Your task to perform on an android device: turn on javascript in the chrome app Image 0: 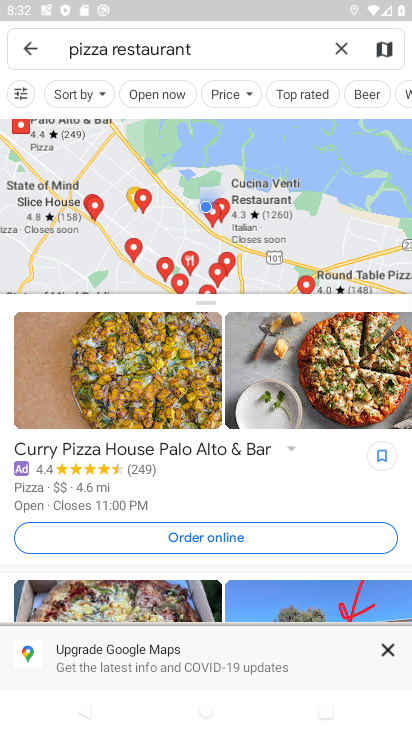
Step 0: press home button
Your task to perform on an android device: turn on javascript in the chrome app Image 1: 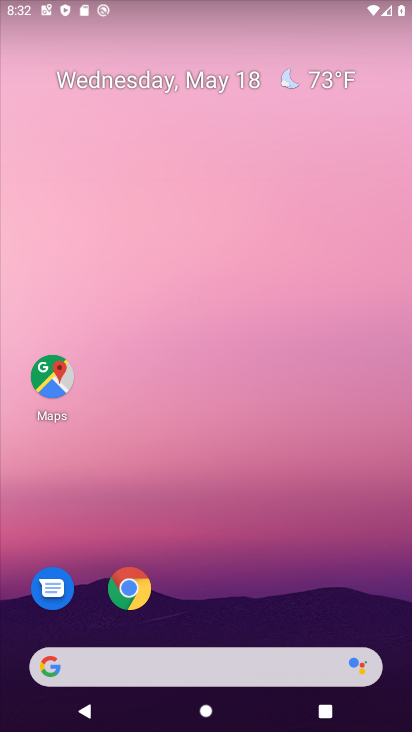
Step 1: drag from (402, 601) to (347, 299)
Your task to perform on an android device: turn on javascript in the chrome app Image 2: 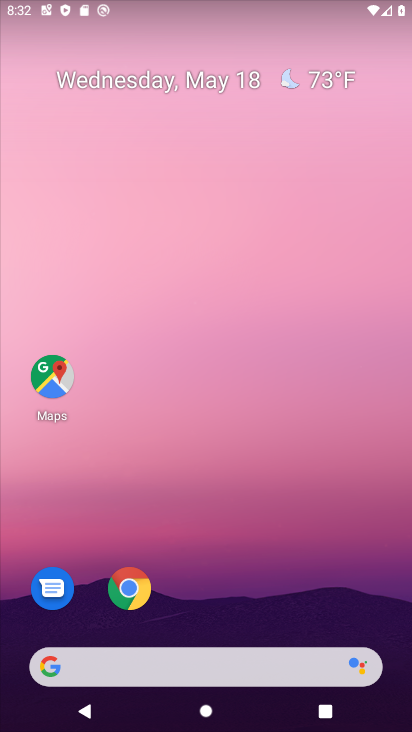
Step 2: drag from (398, 619) to (340, 208)
Your task to perform on an android device: turn on javascript in the chrome app Image 3: 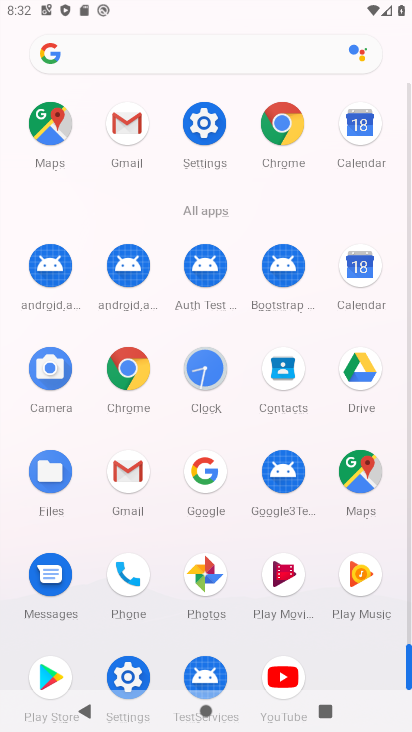
Step 3: click (128, 363)
Your task to perform on an android device: turn on javascript in the chrome app Image 4: 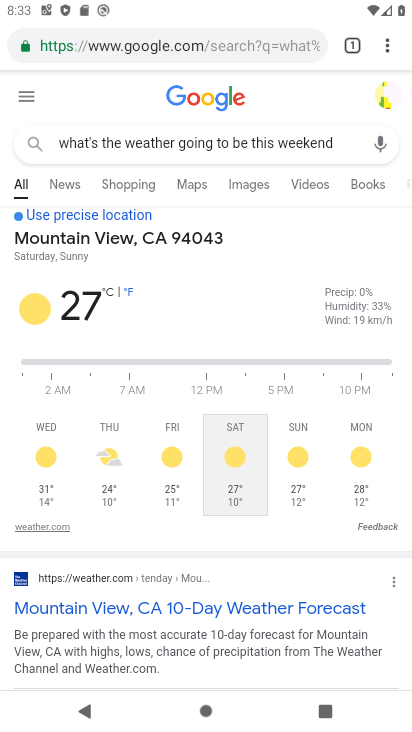
Step 4: drag from (390, 57) to (286, 502)
Your task to perform on an android device: turn on javascript in the chrome app Image 5: 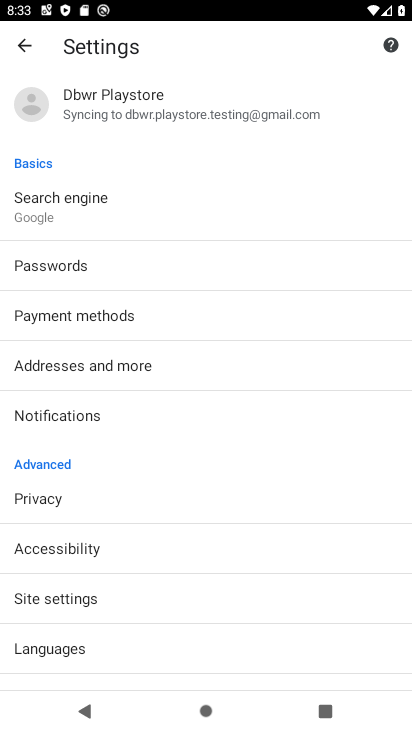
Step 5: drag from (203, 629) to (252, 242)
Your task to perform on an android device: turn on javascript in the chrome app Image 6: 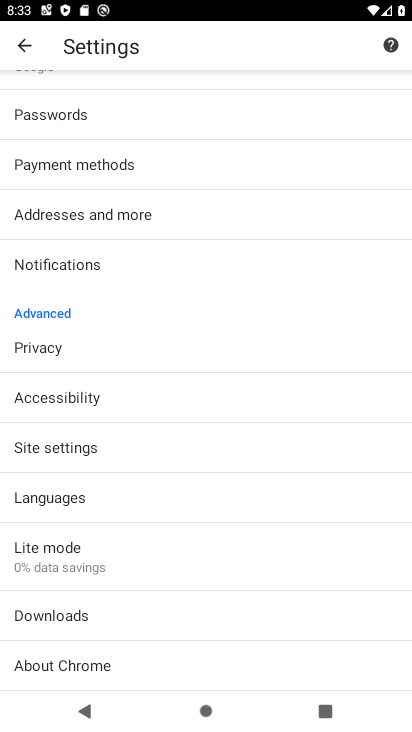
Step 6: drag from (202, 634) to (235, 375)
Your task to perform on an android device: turn on javascript in the chrome app Image 7: 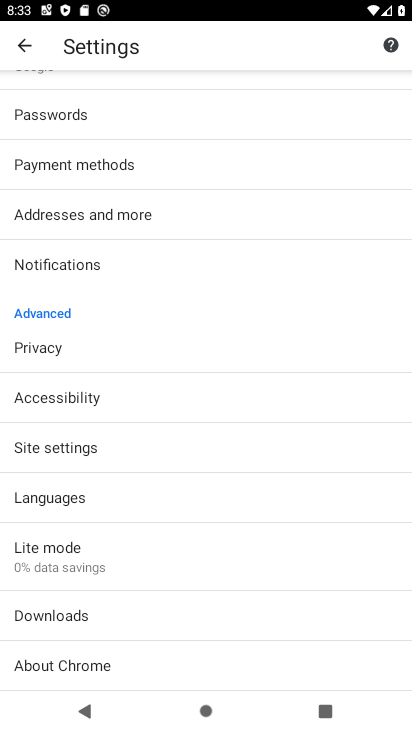
Step 7: click (116, 436)
Your task to perform on an android device: turn on javascript in the chrome app Image 8: 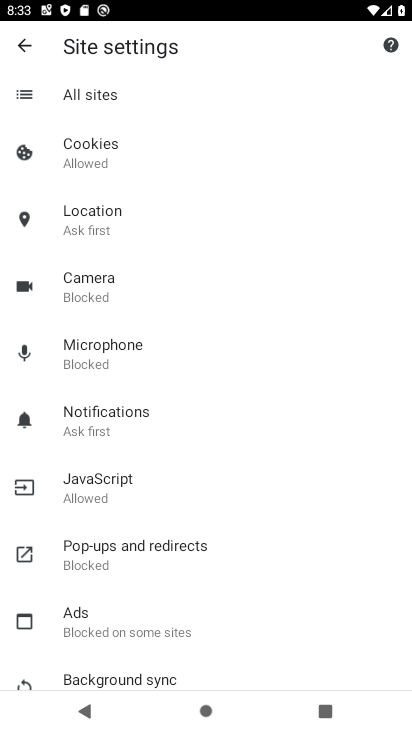
Step 8: click (122, 480)
Your task to perform on an android device: turn on javascript in the chrome app Image 9: 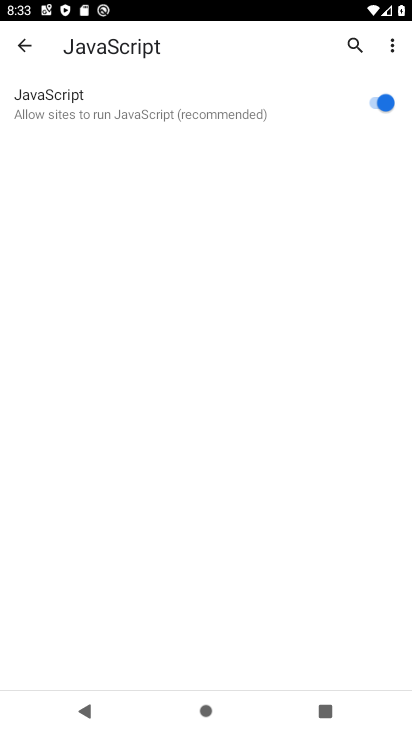
Step 9: task complete